Your task to perform on an android device: all mails in gmail Image 0: 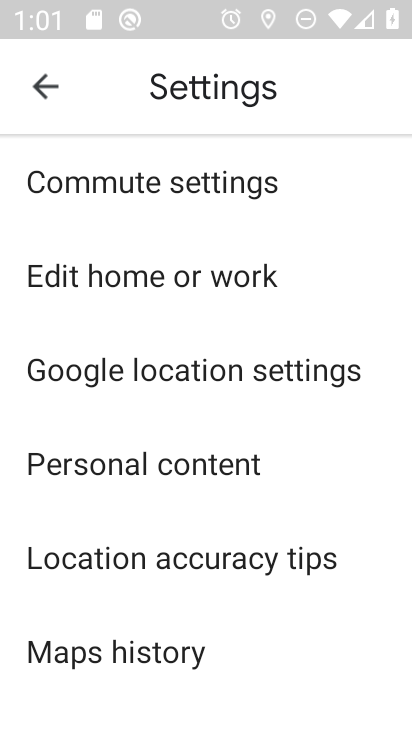
Step 0: press home button
Your task to perform on an android device: all mails in gmail Image 1: 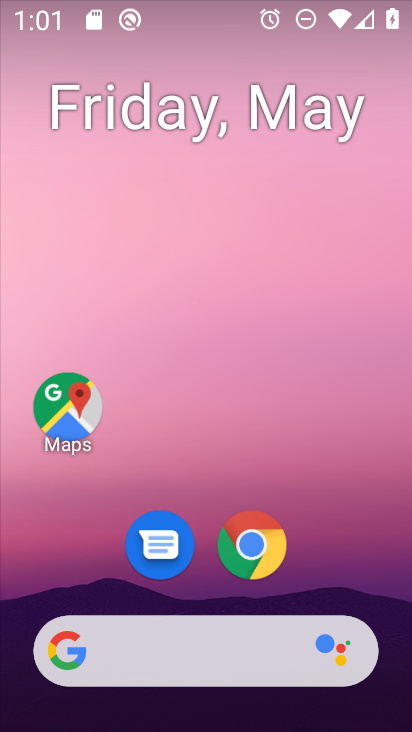
Step 1: drag from (331, 565) to (316, 178)
Your task to perform on an android device: all mails in gmail Image 2: 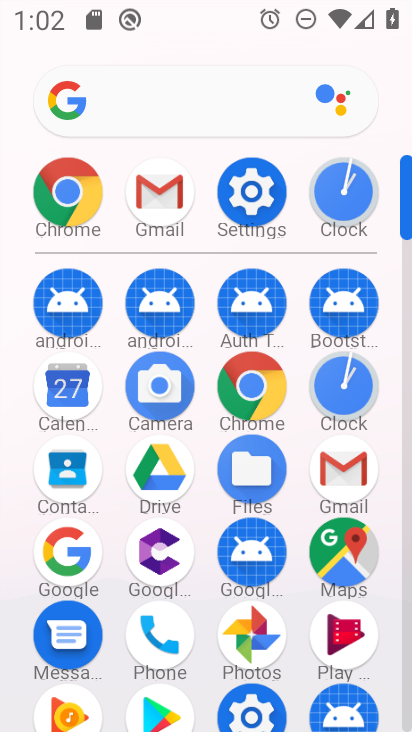
Step 2: click (161, 184)
Your task to perform on an android device: all mails in gmail Image 3: 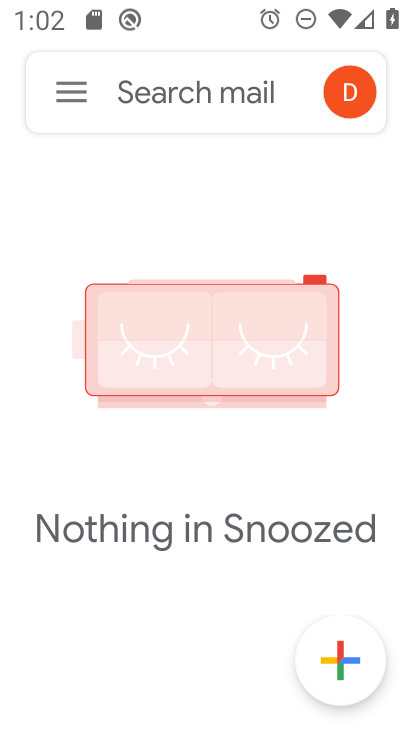
Step 3: click (70, 82)
Your task to perform on an android device: all mails in gmail Image 4: 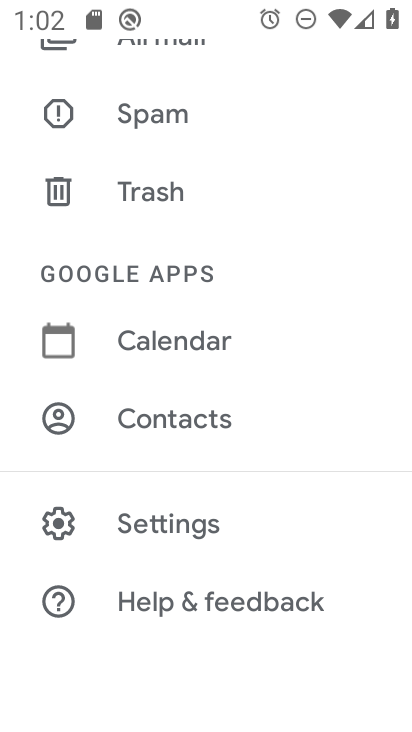
Step 4: drag from (170, 153) to (241, 537)
Your task to perform on an android device: all mails in gmail Image 5: 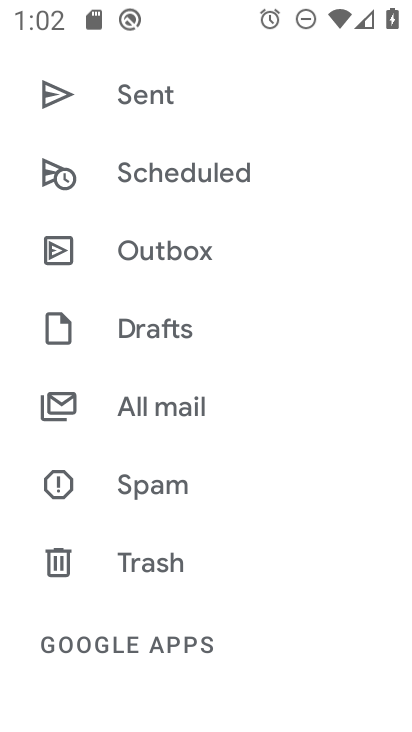
Step 5: drag from (176, 141) to (163, 573)
Your task to perform on an android device: all mails in gmail Image 6: 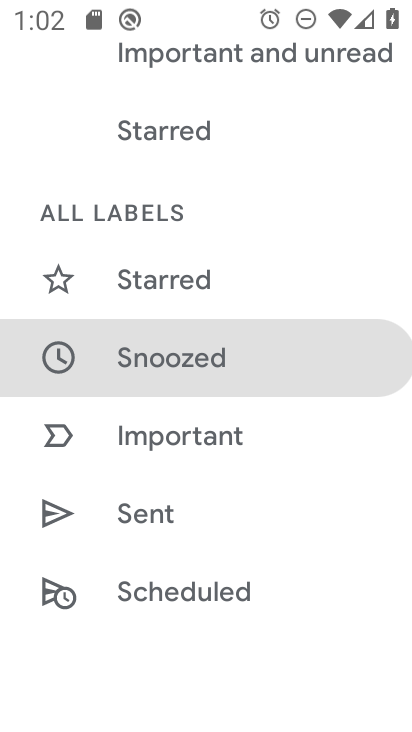
Step 6: drag from (295, 544) to (288, 153)
Your task to perform on an android device: all mails in gmail Image 7: 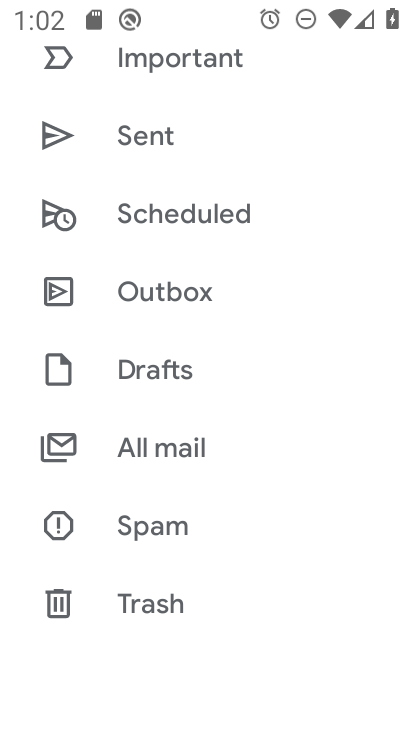
Step 7: click (161, 446)
Your task to perform on an android device: all mails in gmail Image 8: 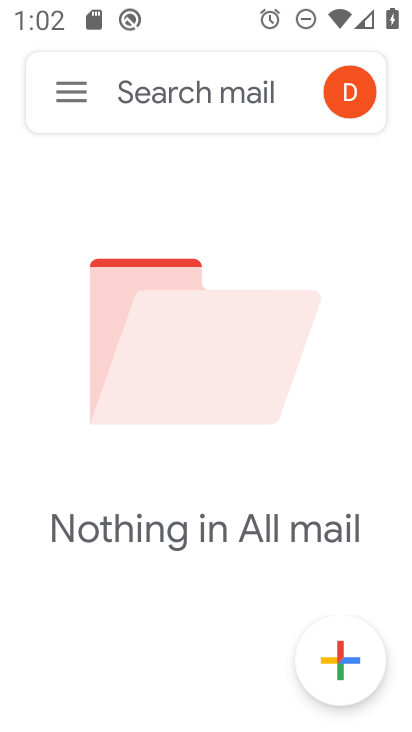
Step 8: task complete